Your task to perform on an android device: turn off translation in the chrome app Image 0: 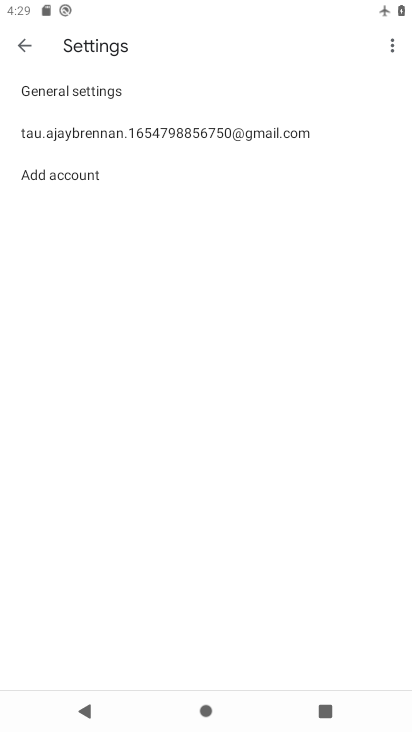
Step 0: press home button
Your task to perform on an android device: turn off translation in the chrome app Image 1: 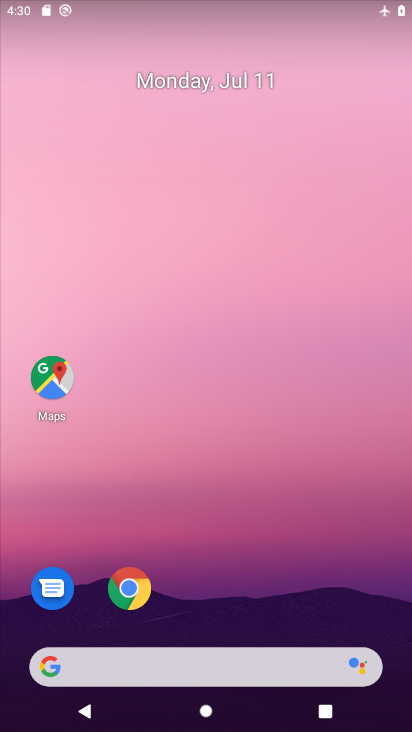
Step 1: drag from (364, 612) to (392, 101)
Your task to perform on an android device: turn off translation in the chrome app Image 2: 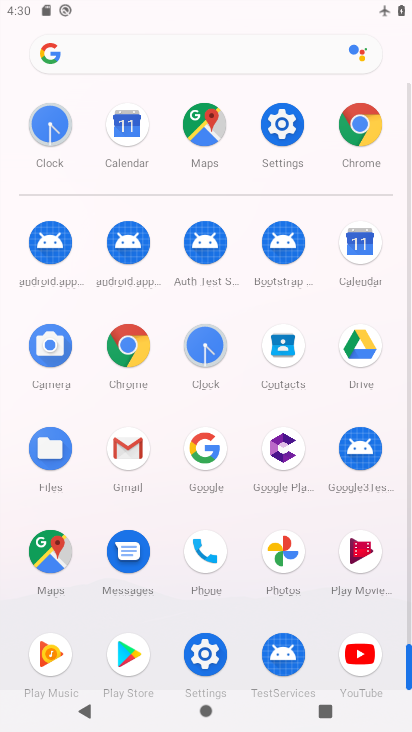
Step 2: click (135, 341)
Your task to perform on an android device: turn off translation in the chrome app Image 3: 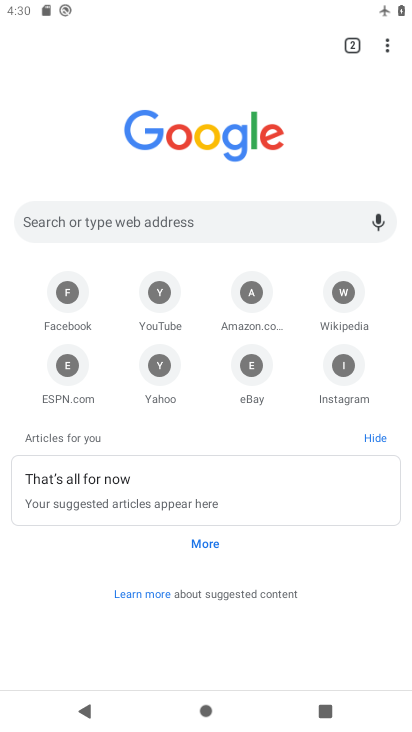
Step 3: click (387, 47)
Your task to perform on an android device: turn off translation in the chrome app Image 4: 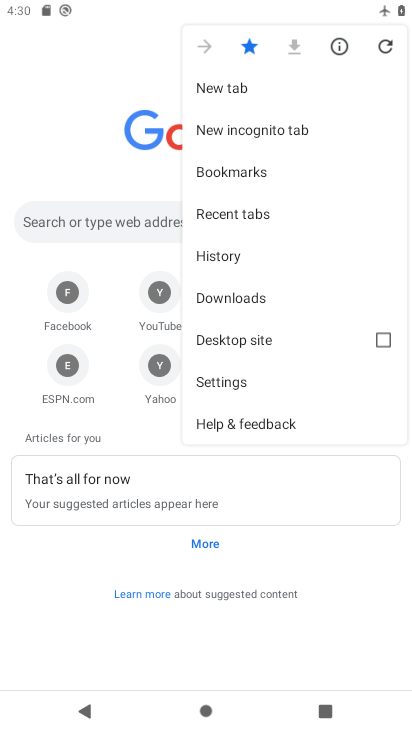
Step 4: click (269, 385)
Your task to perform on an android device: turn off translation in the chrome app Image 5: 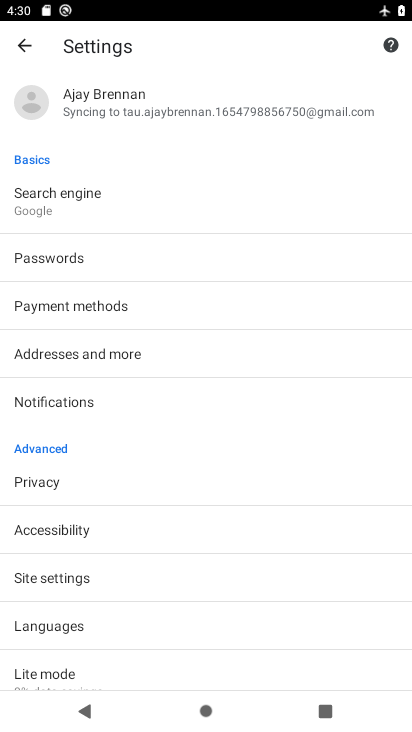
Step 5: drag from (284, 475) to (281, 375)
Your task to perform on an android device: turn off translation in the chrome app Image 6: 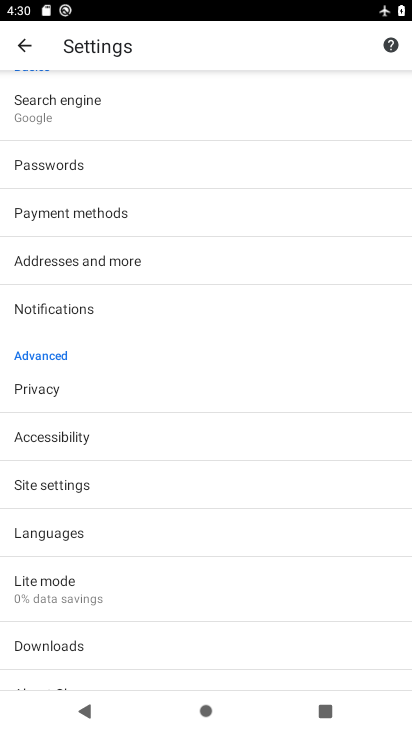
Step 6: drag from (280, 478) to (287, 381)
Your task to perform on an android device: turn off translation in the chrome app Image 7: 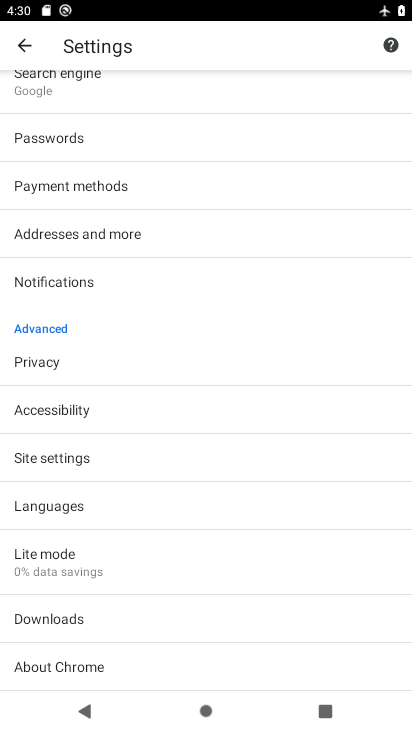
Step 7: click (183, 515)
Your task to perform on an android device: turn off translation in the chrome app Image 8: 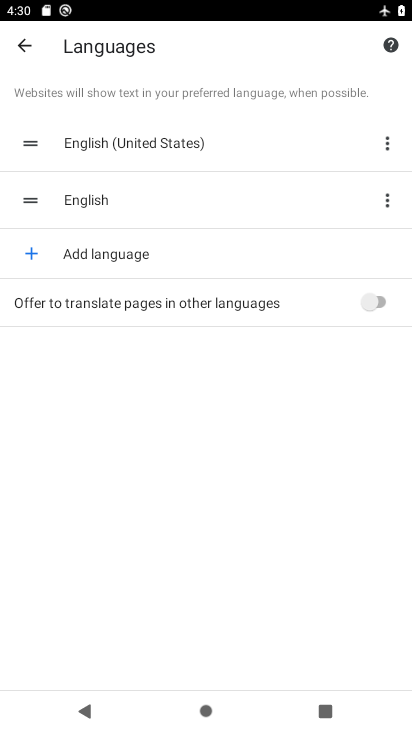
Step 8: task complete